Your task to perform on an android device: Open the calendar and show me this week's events? Image 0: 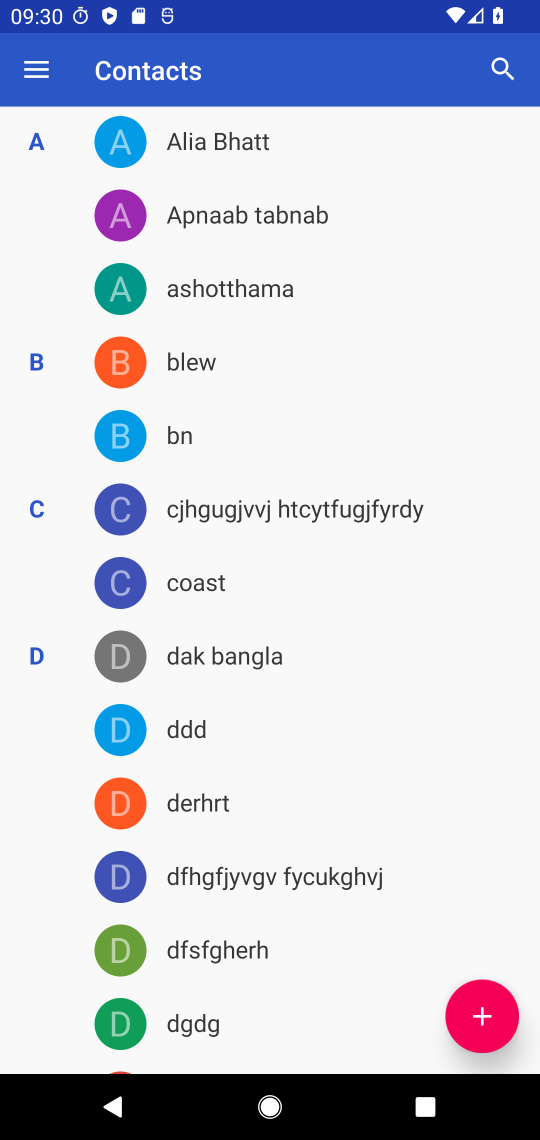
Step 0: press home button
Your task to perform on an android device: Open the calendar and show me this week's events? Image 1: 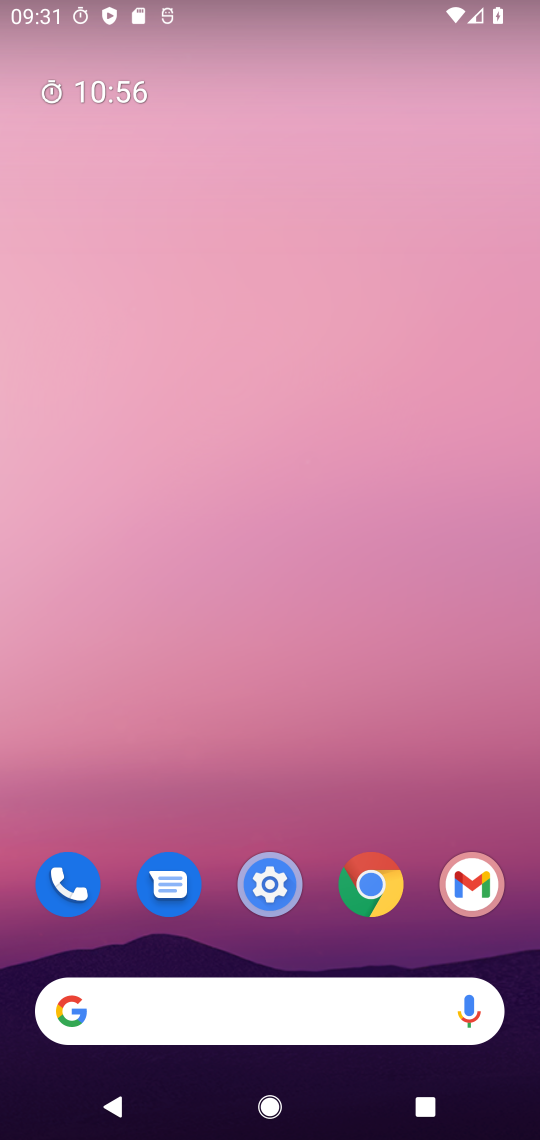
Step 1: drag from (320, 804) to (280, 154)
Your task to perform on an android device: Open the calendar and show me this week's events? Image 2: 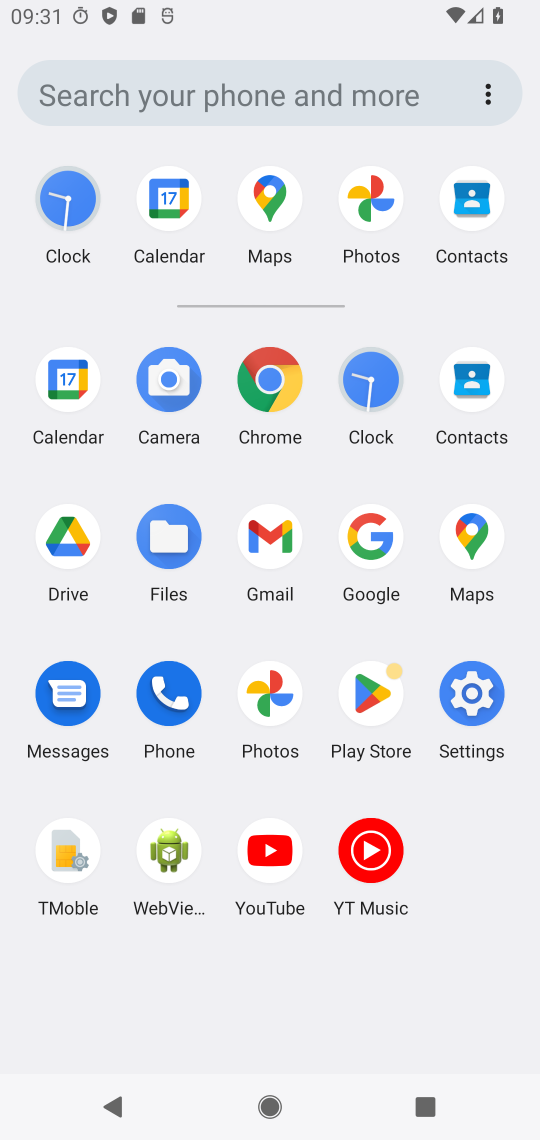
Step 2: click (56, 411)
Your task to perform on an android device: Open the calendar and show me this week's events? Image 3: 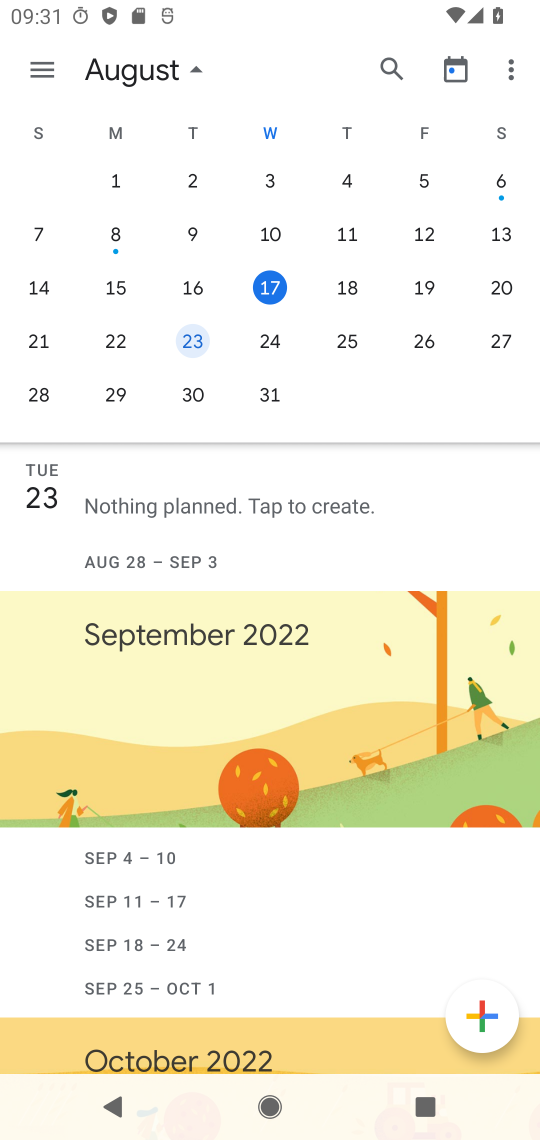
Step 3: click (337, 280)
Your task to perform on an android device: Open the calendar and show me this week's events? Image 4: 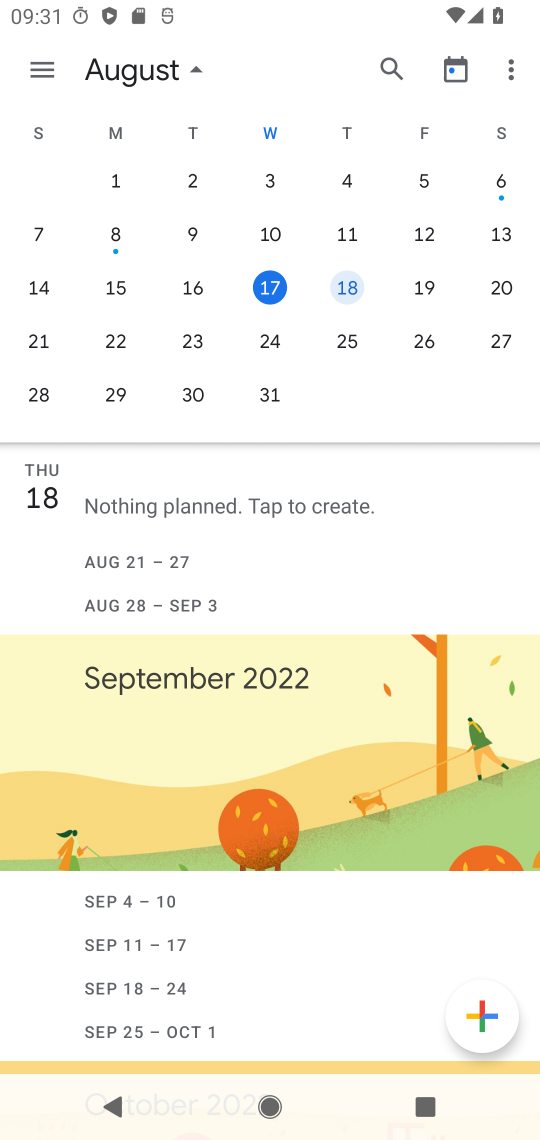
Step 4: click (398, 288)
Your task to perform on an android device: Open the calendar and show me this week's events? Image 5: 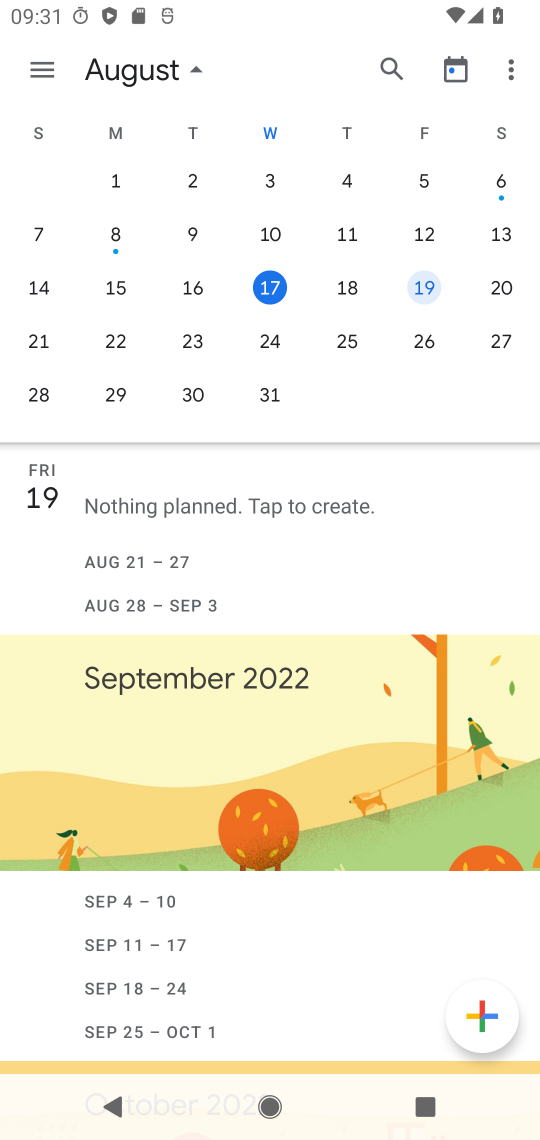
Step 5: click (501, 291)
Your task to perform on an android device: Open the calendar and show me this week's events? Image 6: 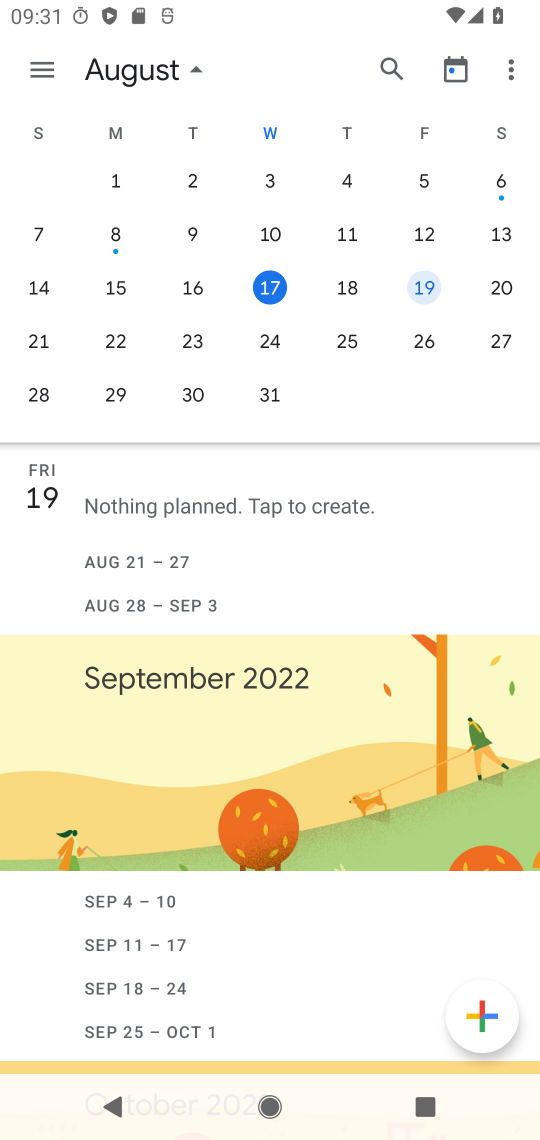
Step 6: click (391, 298)
Your task to perform on an android device: Open the calendar and show me this week's events? Image 7: 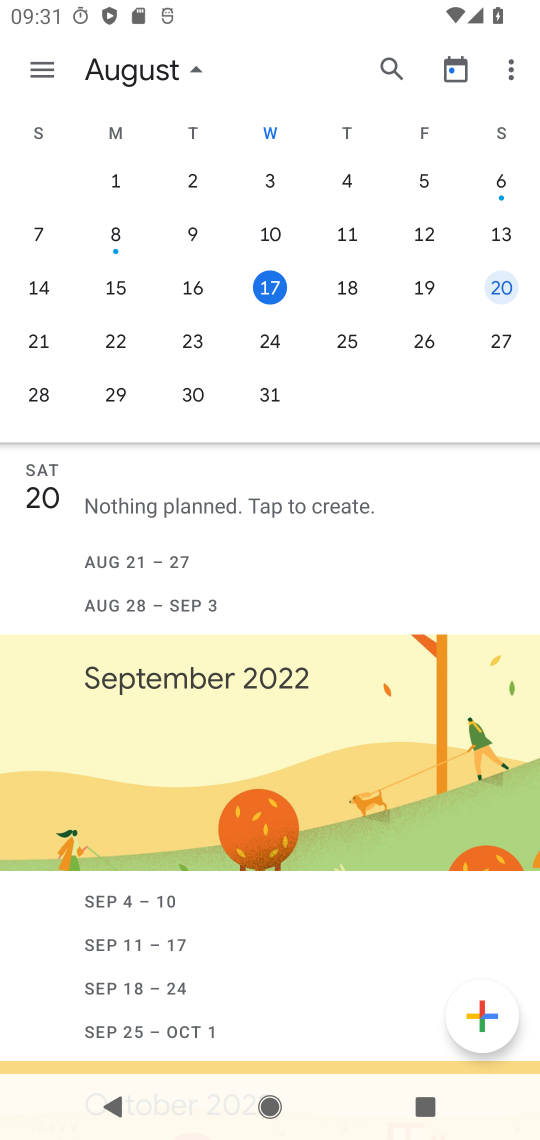
Step 7: click (375, 300)
Your task to perform on an android device: Open the calendar and show me this week's events? Image 8: 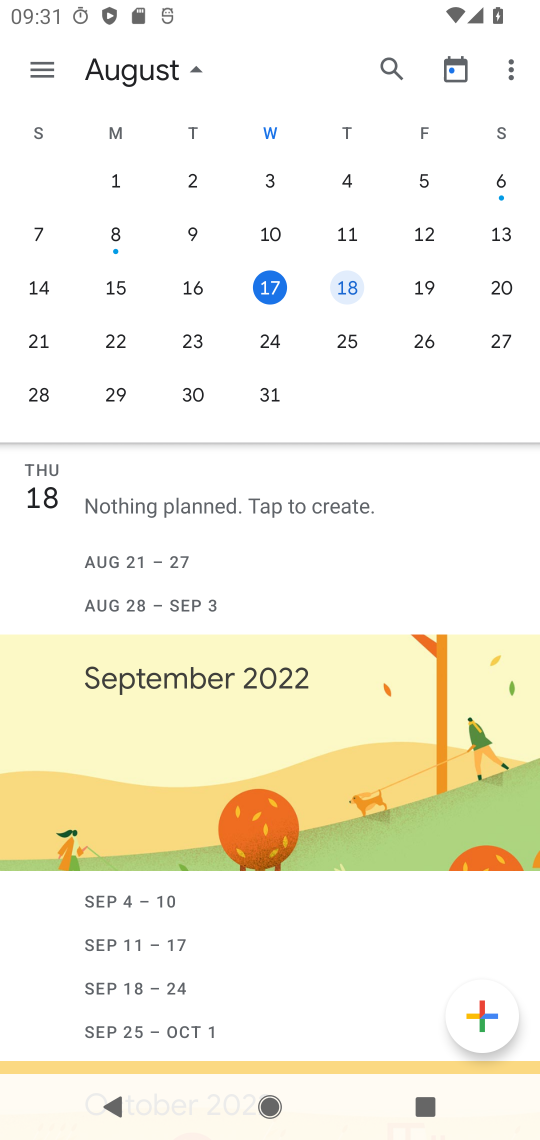
Step 8: click (341, 298)
Your task to perform on an android device: Open the calendar and show me this week's events? Image 9: 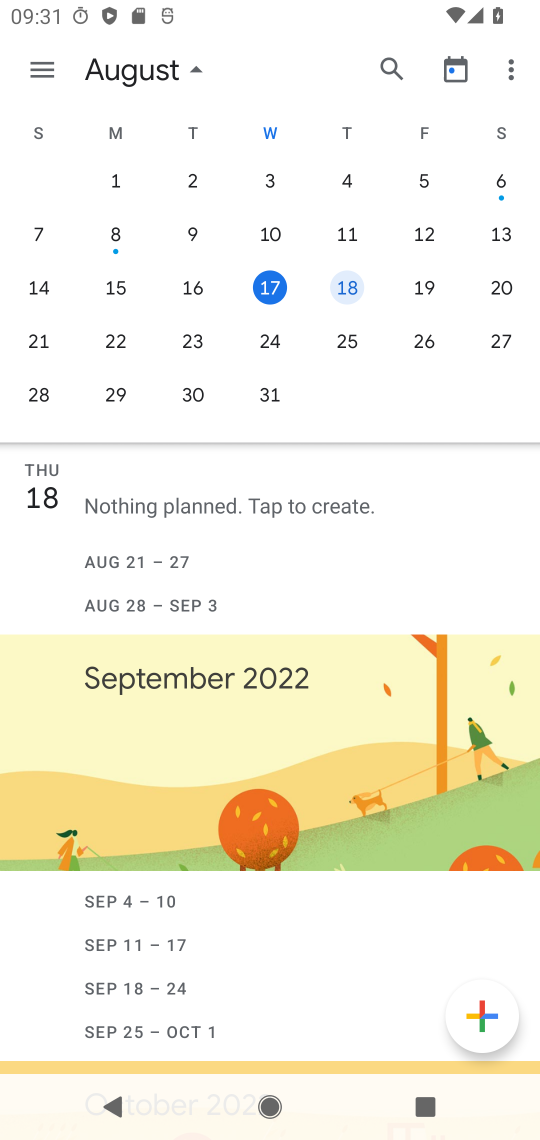
Step 9: click (344, 298)
Your task to perform on an android device: Open the calendar and show me this week's events? Image 10: 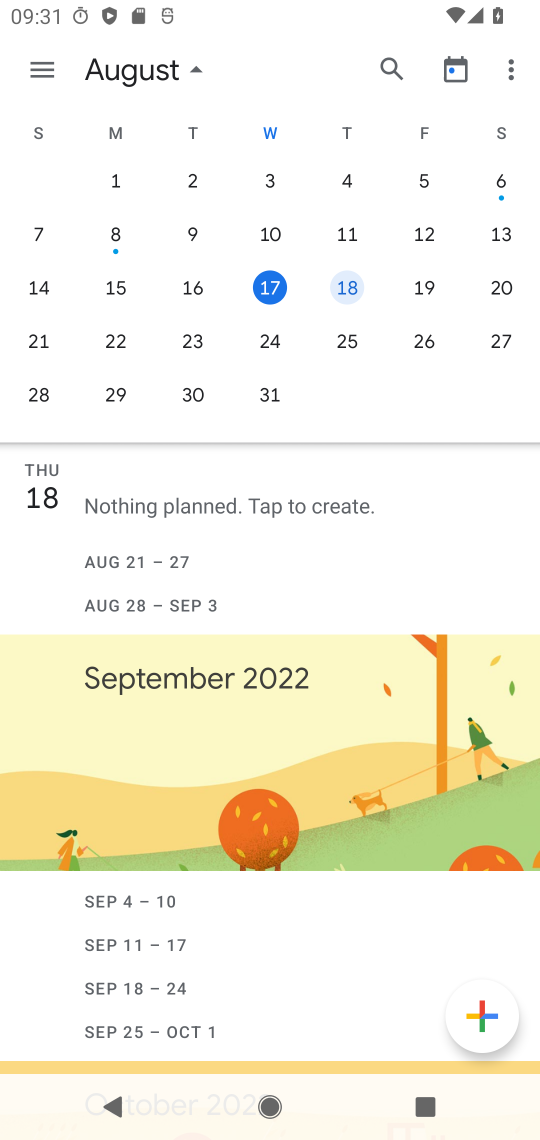
Step 10: click (373, 282)
Your task to perform on an android device: Open the calendar and show me this week's events? Image 11: 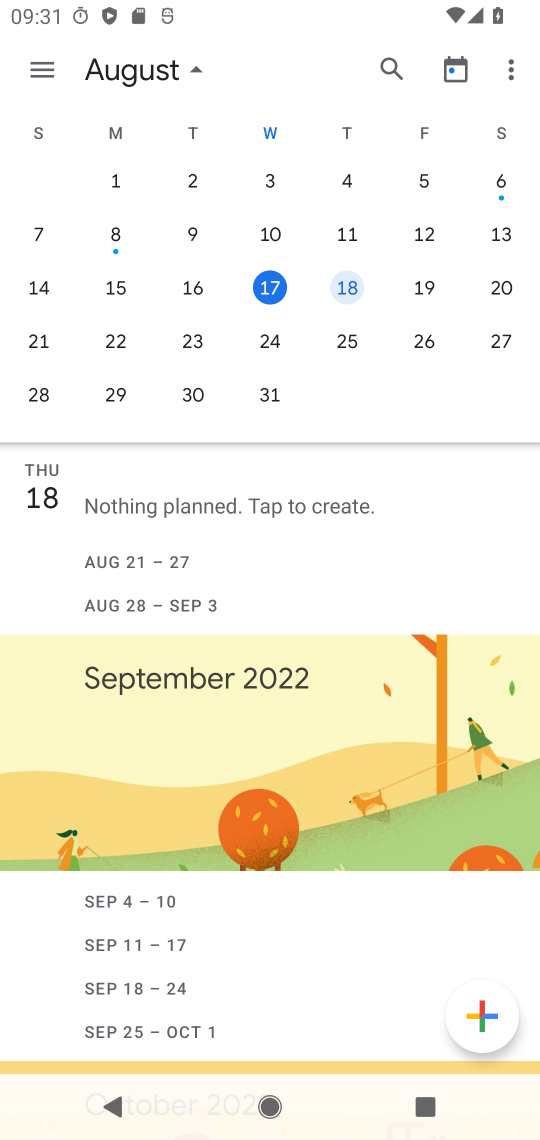
Step 11: task complete